Your task to perform on an android device: toggle priority inbox in the gmail app Image 0: 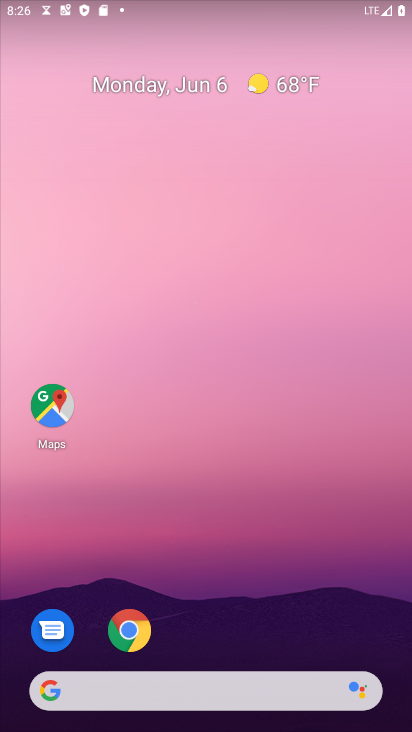
Step 0: drag from (262, 577) to (182, 23)
Your task to perform on an android device: toggle priority inbox in the gmail app Image 1: 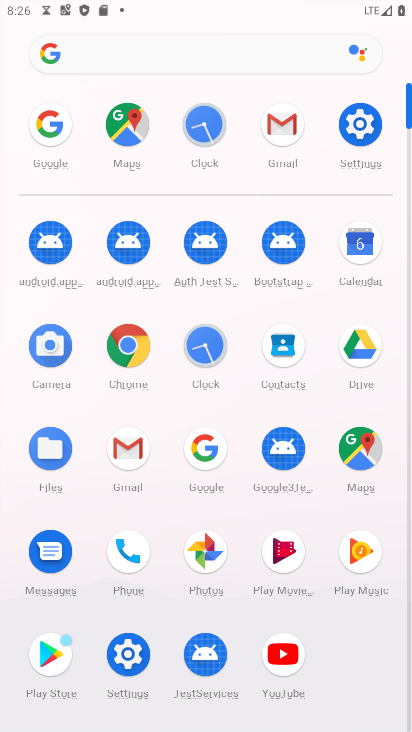
Step 1: click (281, 122)
Your task to perform on an android device: toggle priority inbox in the gmail app Image 2: 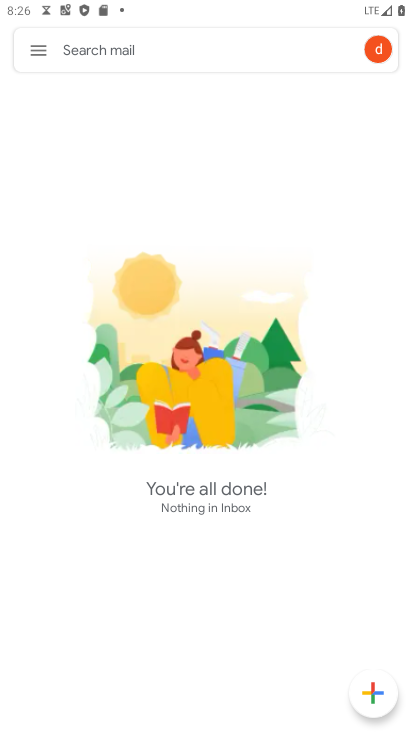
Step 2: click (37, 52)
Your task to perform on an android device: toggle priority inbox in the gmail app Image 3: 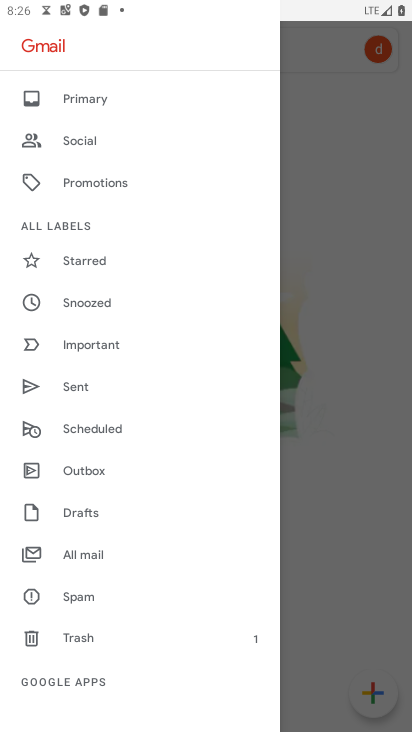
Step 3: drag from (82, 581) to (57, 414)
Your task to perform on an android device: toggle priority inbox in the gmail app Image 4: 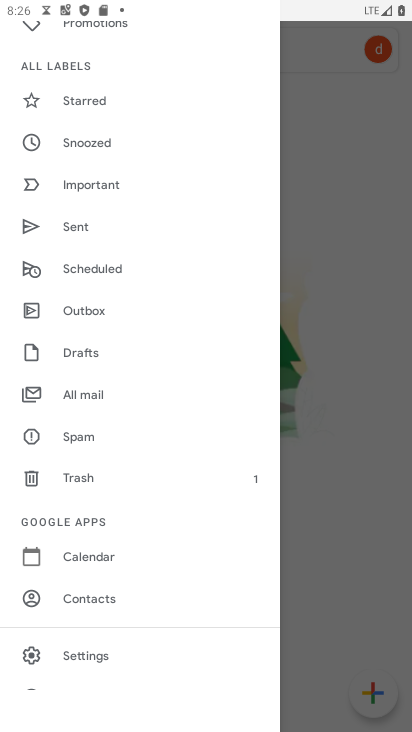
Step 4: drag from (79, 578) to (83, 474)
Your task to perform on an android device: toggle priority inbox in the gmail app Image 5: 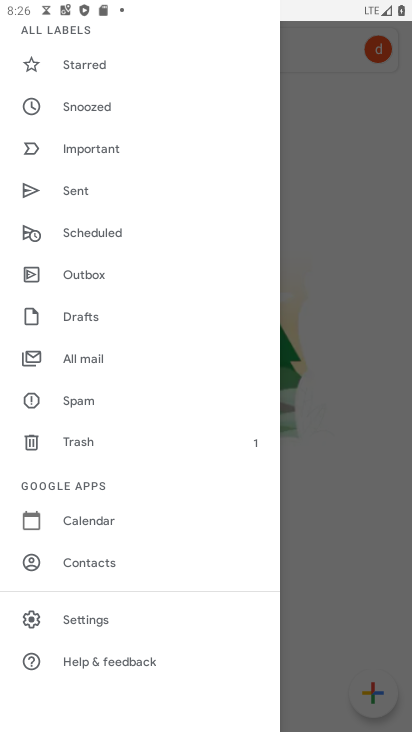
Step 5: click (93, 616)
Your task to perform on an android device: toggle priority inbox in the gmail app Image 6: 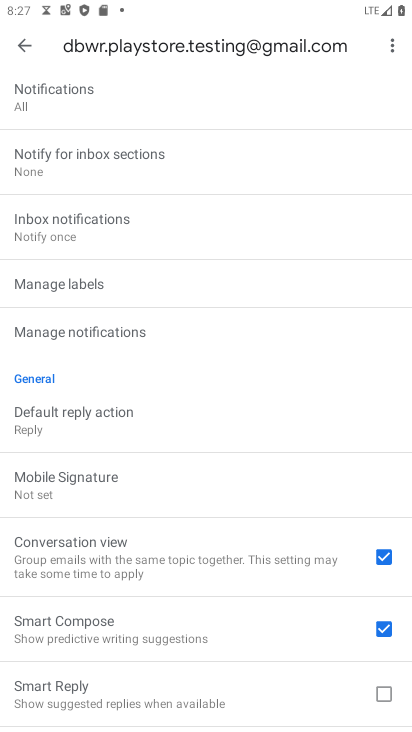
Step 6: drag from (143, 270) to (190, 360)
Your task to perform on an android device: toggle priority inbox in the gmail app Image 7: 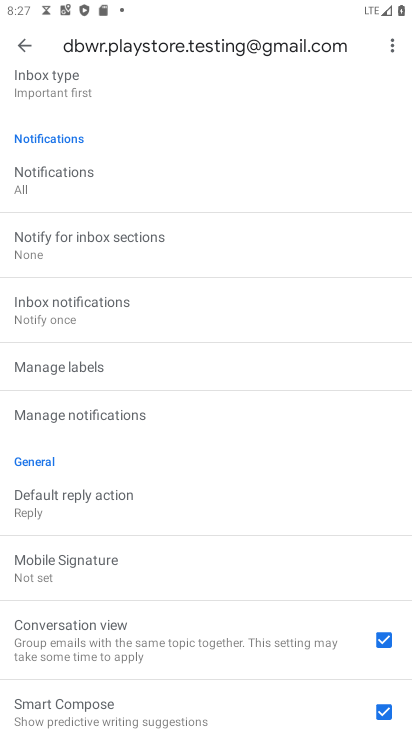
Step 7: drag from (128, 165) to (197, 331)
Your task to perform on an android device: toggle priority inbox in the gmail app Image 8: 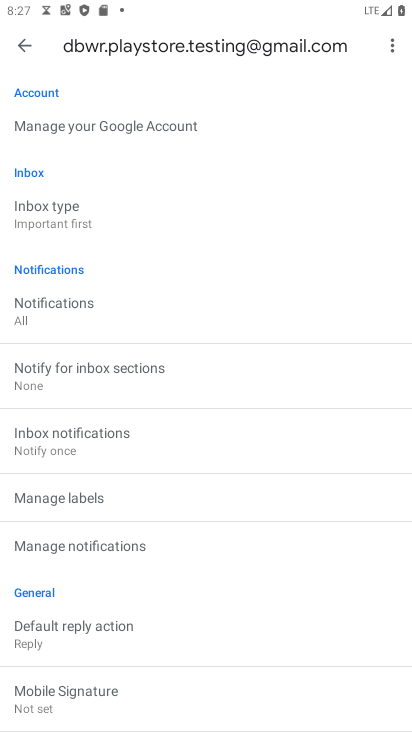
Step 8: click (74, 227)
Your task to perform on an android device: toggle priority inbox in the gmail app Image 9: 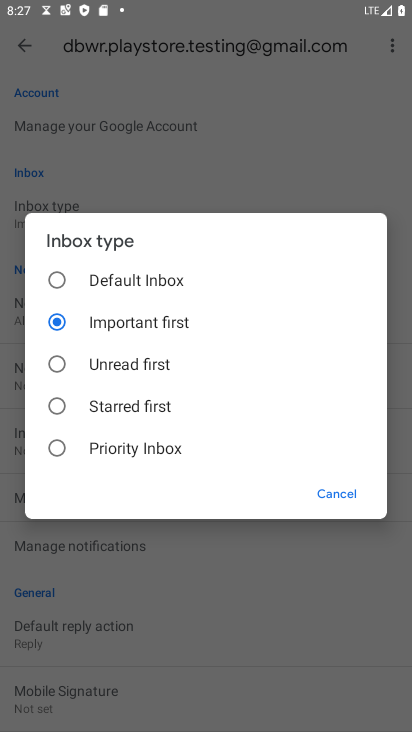
Step 9: click (57, 448)
Your task to perform on an android device: toggle priority inbox in the gmail app Image 10: 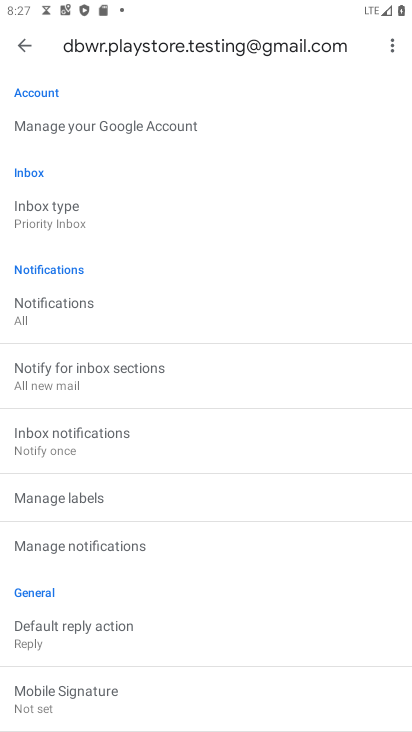
Step 10: task complete